Your task to perform on an android device: change the clock style Image 0: 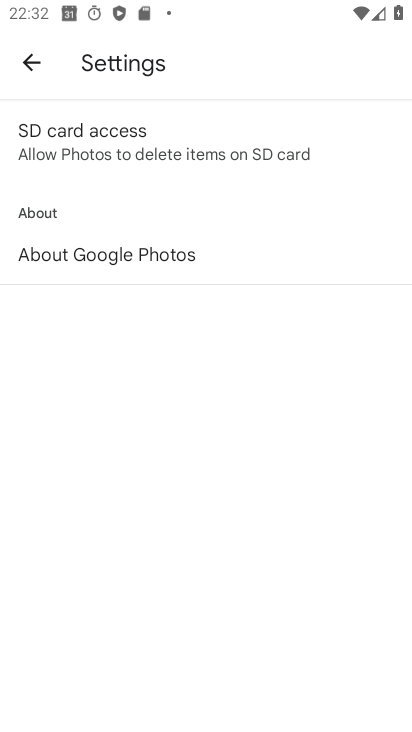
Step 0: press home button
Your task to perform on an android device: change the clock style Image 1: 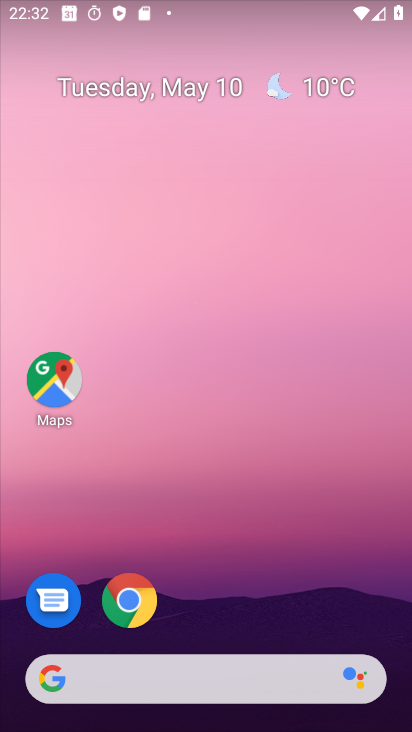
Step 1: drag from (311, 544) to (327, 89)
Your task to perform on an android device: change the clock style Image 2: 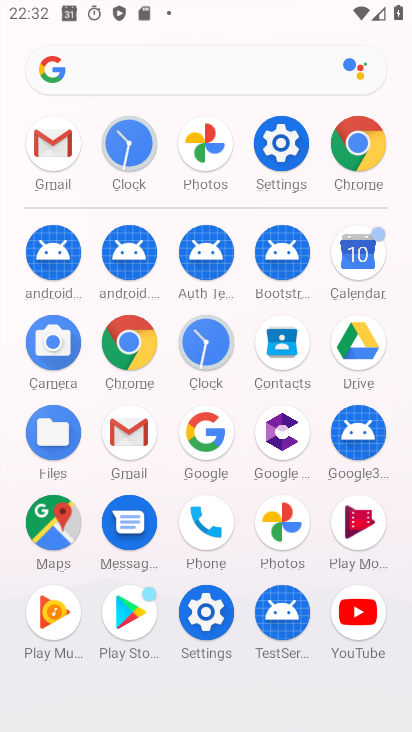
Step 2: click (129, 146)
Your task to perform on an android device: change the clock style Image 3: 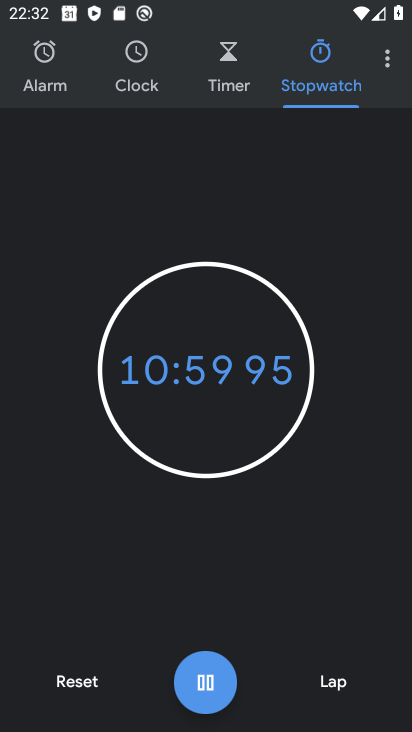
Step 3: click (392, 66)
Your task to perform on an android device: change the clock style Image 4: 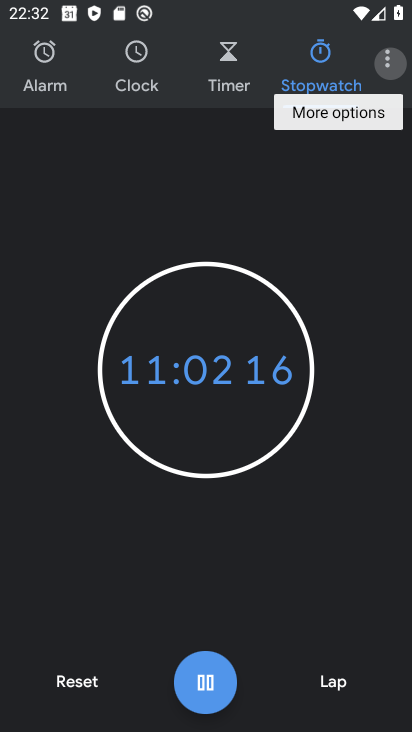
Step 4: click (391, 65)
Your task to perform on an android device: change the clock style Image 5: 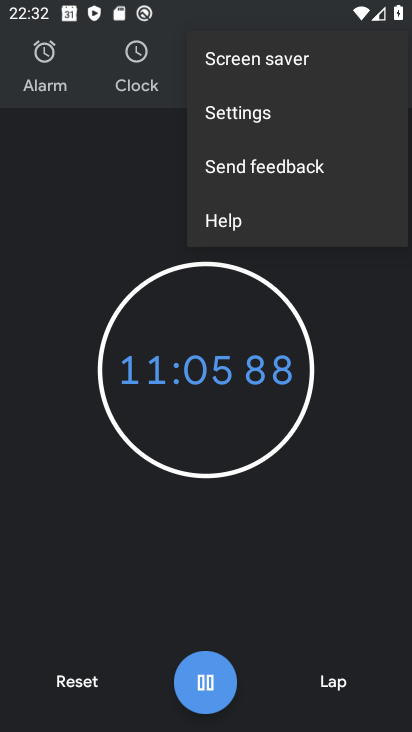
Step 5: click (256, 123)
Your task to perform on an android device: change the clock style Image 6: 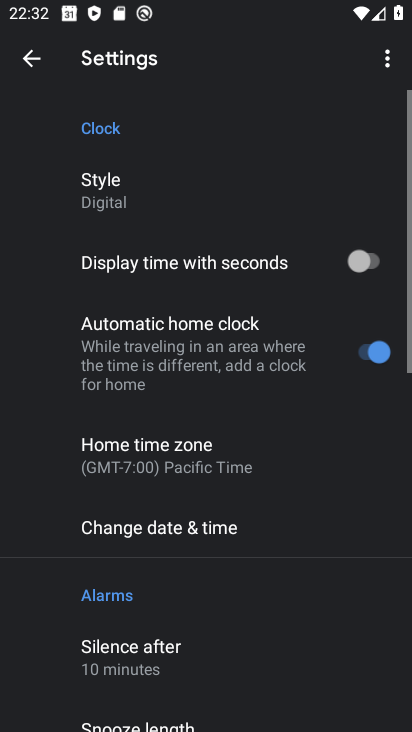
Step 6: click (111, 202)
Your task to perform on an android device: change the clock style Image 7: 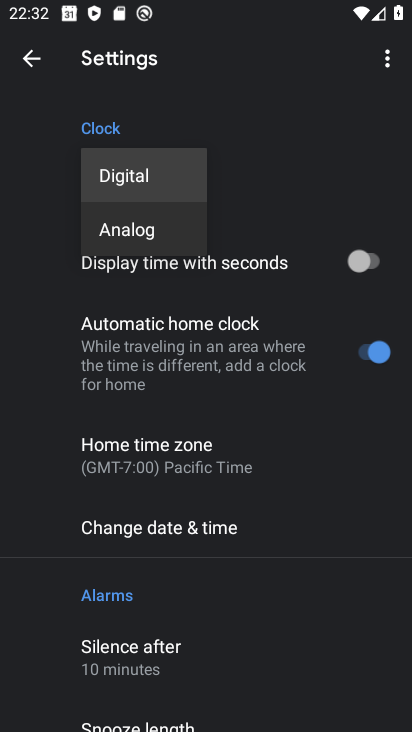
Step 7: click (129, 246)
Your task to perform on an android device: change the clock style Image 8: 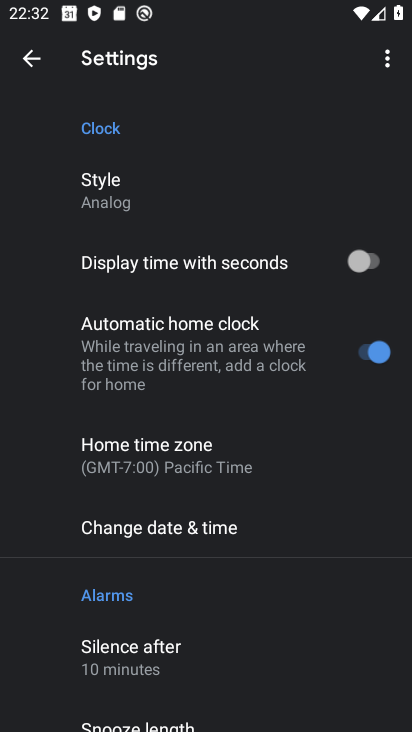
Step 8: task complete